Your task to perform on an android device: Show me recent news Image 0: 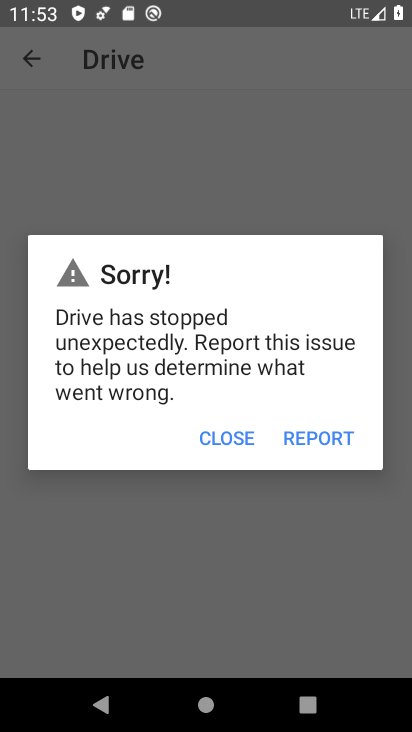
Step 0: press home button
Your task to perform on an android device: Show me recent news Image 1: 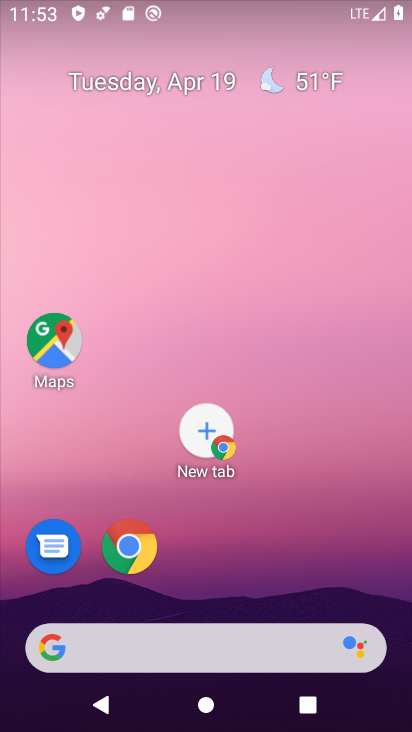
Step 1: click (134, 654)
Your task to perform on an android device: Show me recent news Image 2: 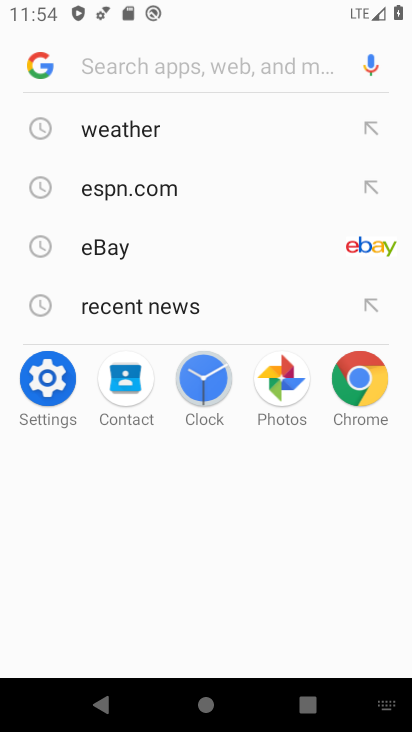
Step 2: click (44, 57)
Your task to perform on an android device: Show me recent news Image 3: 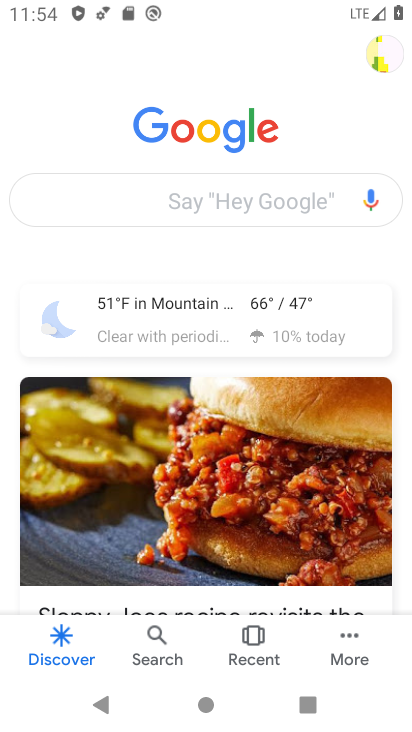
Step 3: task complete